Your task to perform on an android device: Open Reddit.com Image 0: 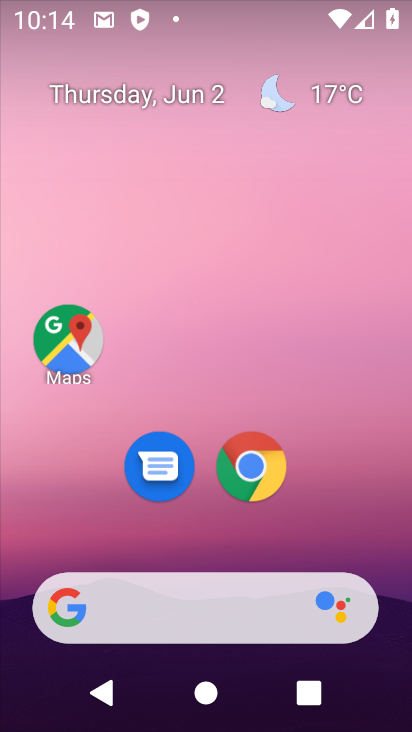
Step 0: press home button
Your task to perform on an android device: Open Reddit.com Image 1: 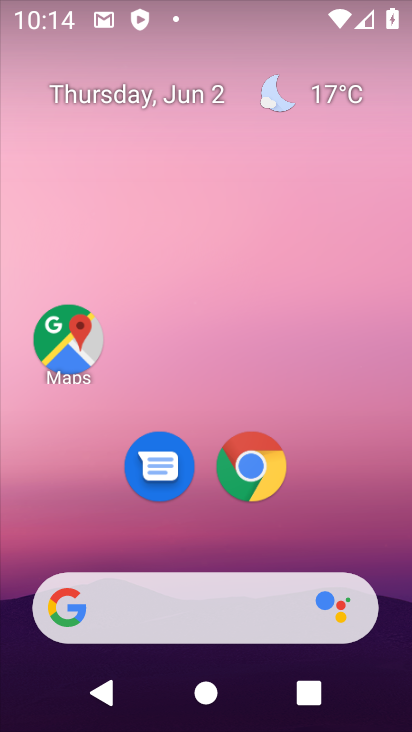
Step 1: click (81, 601)
Your task to perform on an android device: Open Reddit.com Image 2: 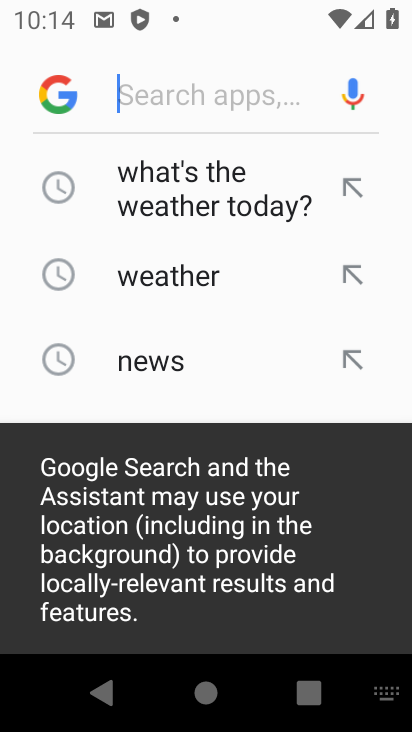
Step 2: click (200, 94)
Your task to perform on an android device: Open Reddit.com Image 3: 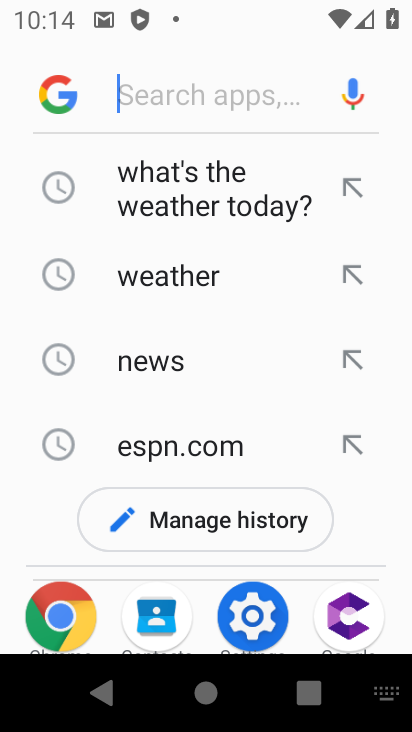
Step 3: type "Reddit.com"
Your task to perform on an android device: Open Reddit.com Image 4: 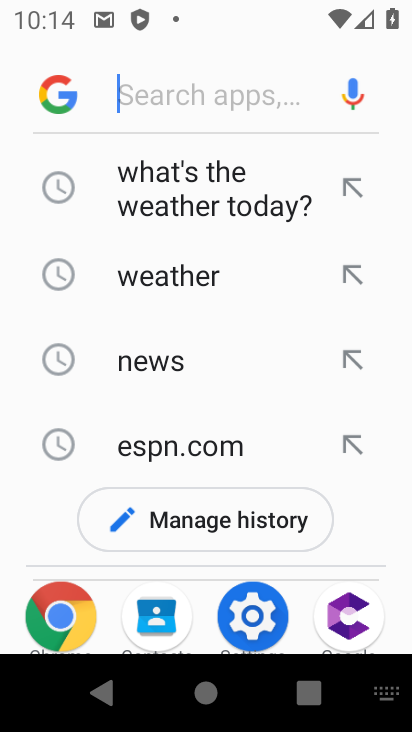
Step 4: click (219, 122)
Your task to perform on an android device: Open Reddit.com Image 5: 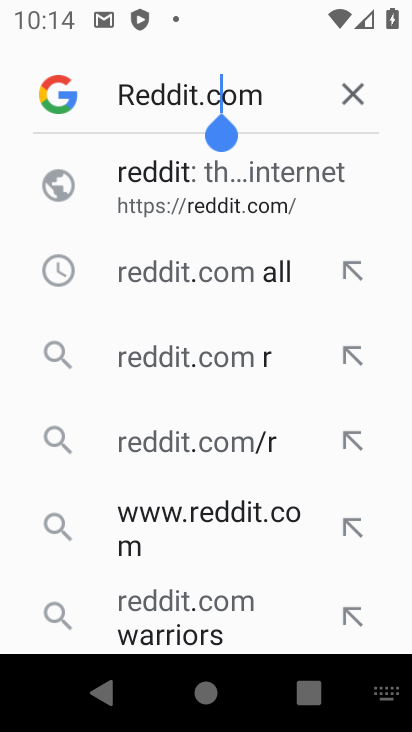
Step 5: click (171, 173)
Your task to perform on an android device: Open Reddit.com Image 6: 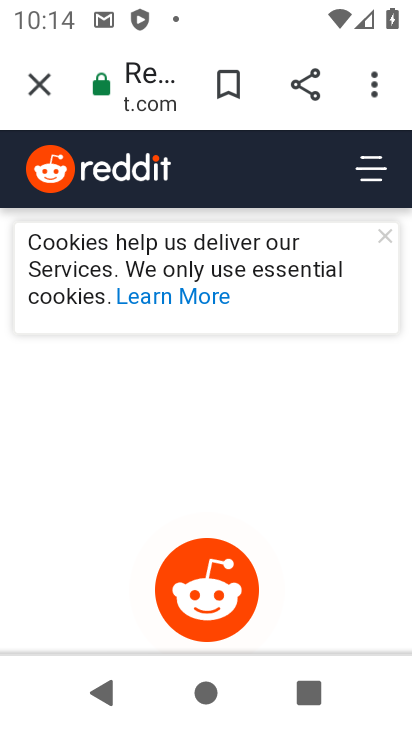
Step 6: task complete